Your task to perform on an android device: What's on my calendar tomorrow? Image 0: 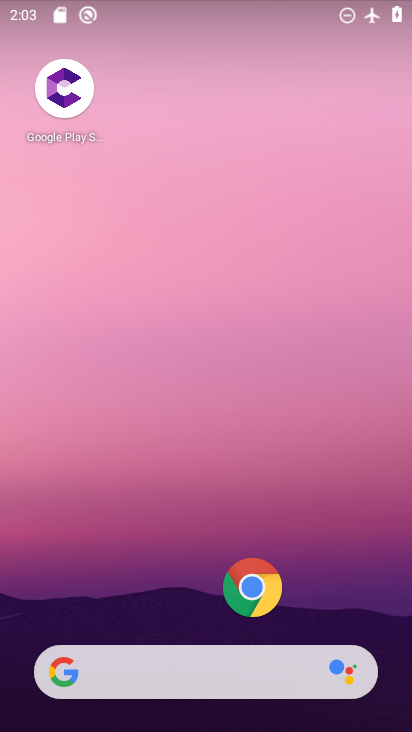
Step 0: drag from (153, 566) to (195, 4)
Your task to perform on an android device: What's on my calendar tomorrow? Image 1: 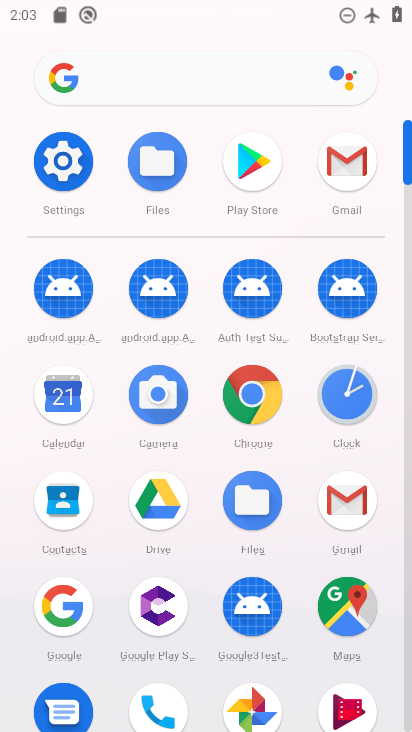
Step 1: click (51, 400)
Your task to perform on an android device: What's on my calendar tomorrow? Image 2: 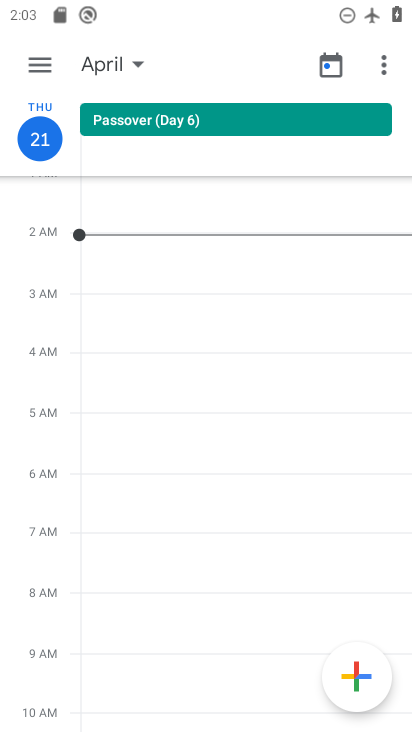
Step 2: click (33, 66)
Your task to perform on an android device: What's on my calendar tomorrow? Image 3: 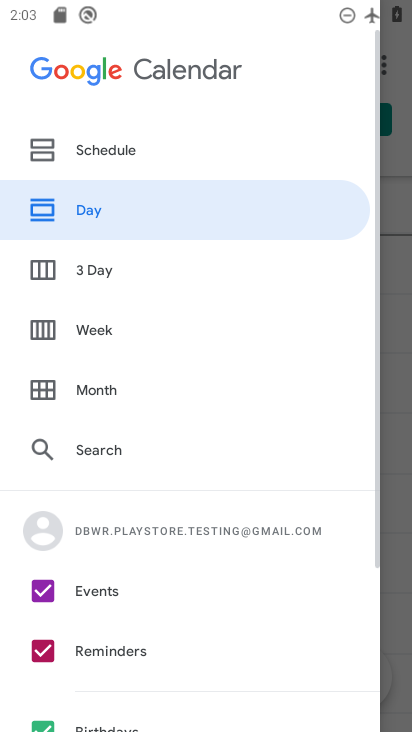
Step 3: click (83, 206)
Your task to perform on an android device: What's on my calendar tomorrow? Image 4: 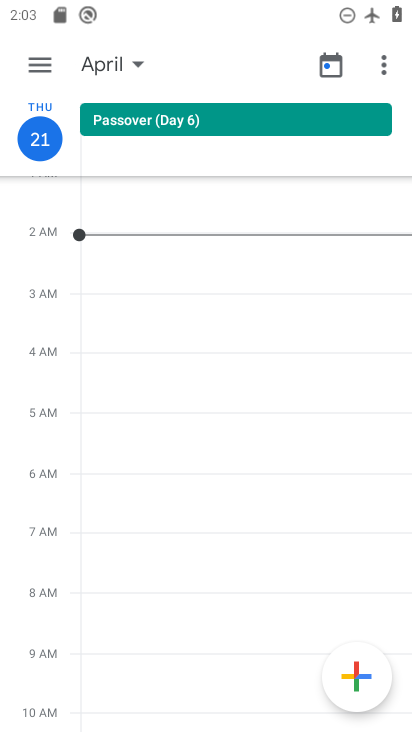
Step 4: click (137, 63)
Your task to perform on an android device: What's on my calendar tomorrow? Image 5: 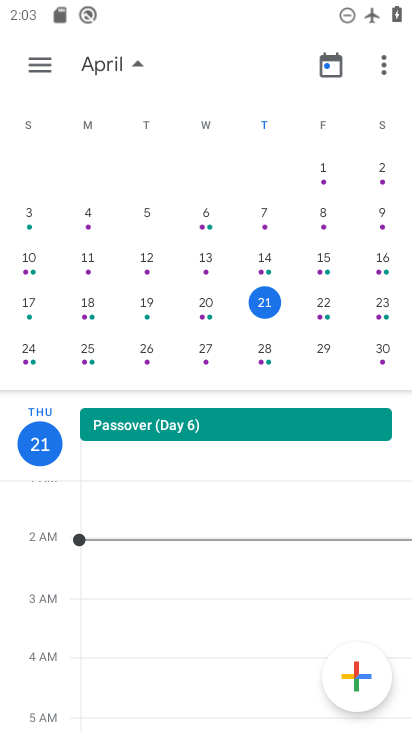
Step 5: click (321, 303)
Your task to perform on an android device: What's on my calendar tomorrow? Image 6: 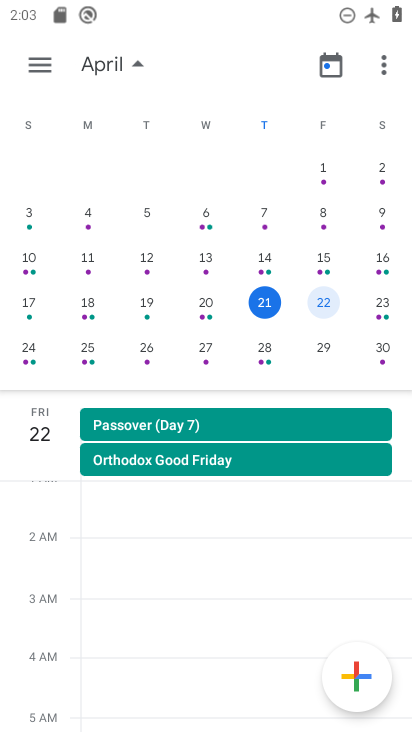
Step 6: task complete